Your task to perform on an android device: Go to accessibility settings Image 0: 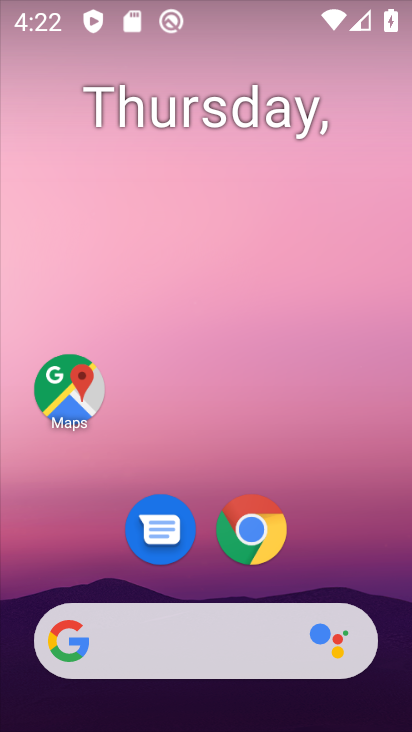
Step 0: drag from (95, 588) to (249, 166)
Your task to perform on an android device: Go to accessibility settings Image 1: 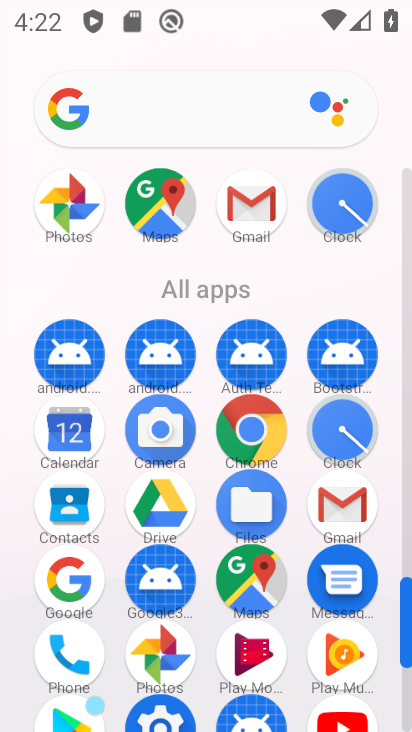
Step 1: drag from (173, 661) to (229, 487)
Your task to perform on an android device: Go to accessibility settings Image 2: 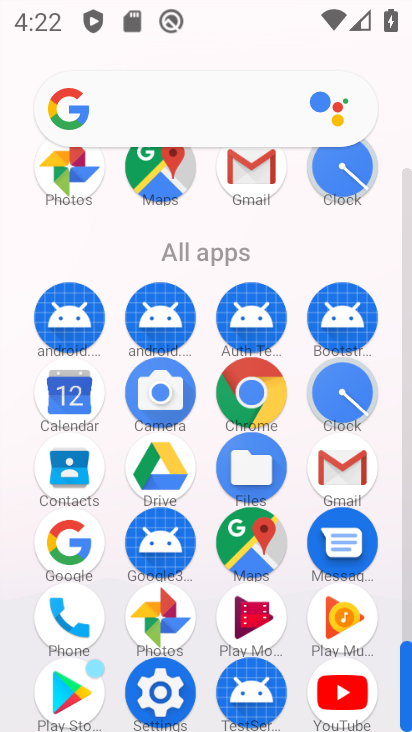
Step 2: click (153, 709)
Your task to perform on an android device: Go to accessibility settings Image 3: 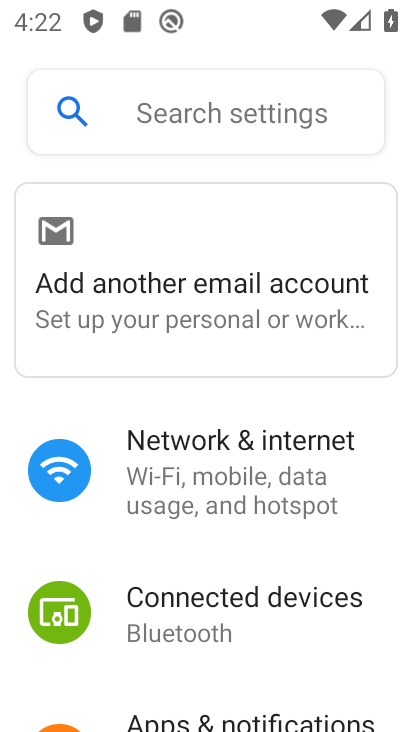
Step 3: drag from (191, 671) to (372, 150)
Your task to perform on an android device: Go to accessibility settings Image 4: 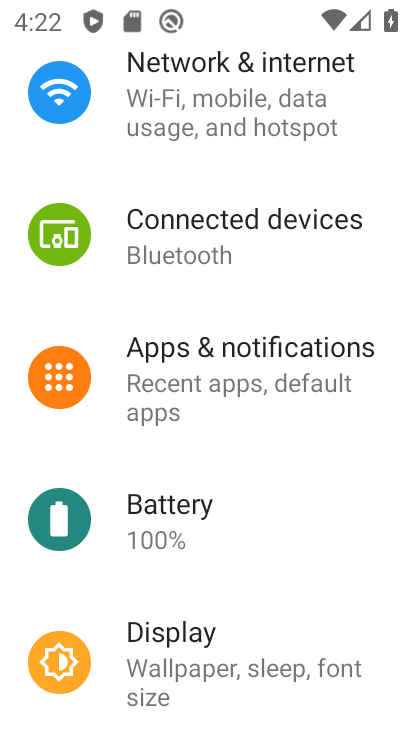
Step 4: drag from (259, 641) to (376, 196)
Your task to perform on an android device: Go to accessibility settings Image 5: 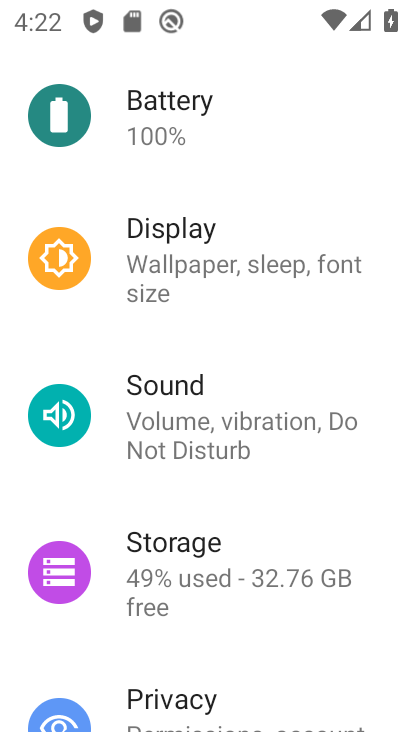
Step 5: drag from (310, 619) to (411, 294)
Your task to perform on an android device: Go to accessibility settings Image 6: 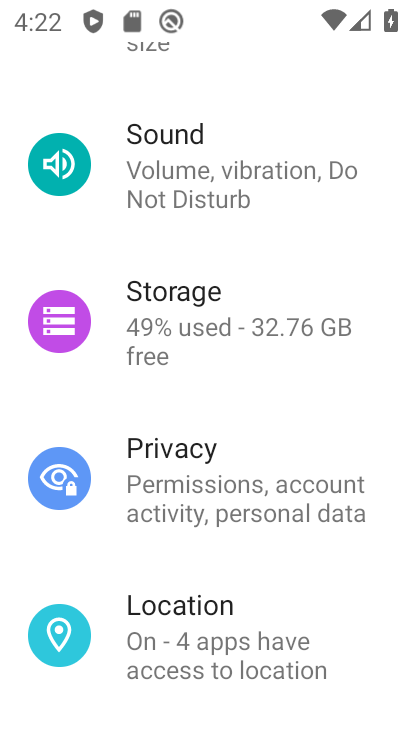
Step 6: drag from (223, 655) to (306, 324)
Your task to perform on an android device: Go to accessibility settings Image 7: 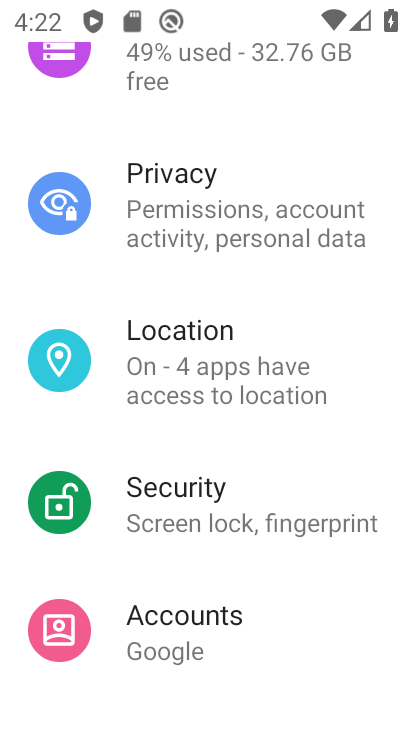
Step 7: drag from (243, 577) to (376, 249)
Your task to perform on an android device: Go to accessibility settings Image 8: 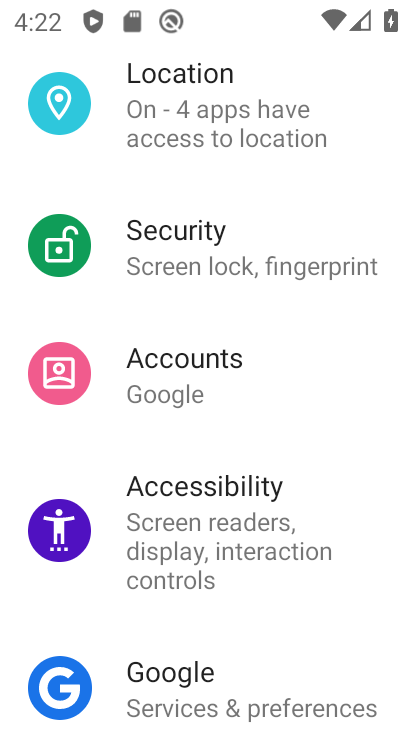
Step 8: drag from (222, 646) to (315, 400)
Your task to perform on an android device: Go to accessibility settings Image 9: 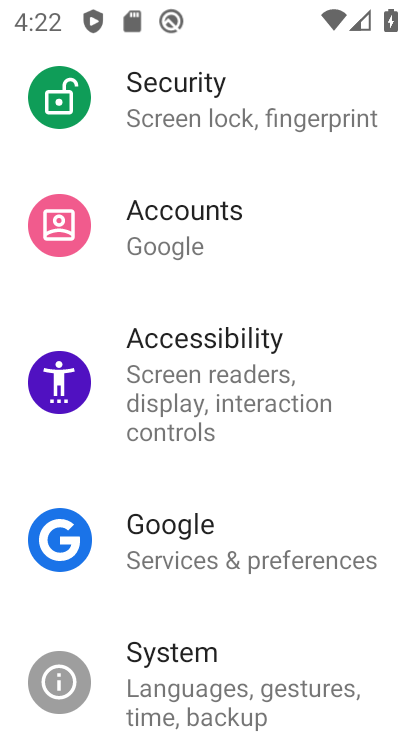
Step 9: click (302, 401)
Your task to perform on an android device: Go to accessibility settings Image 10: 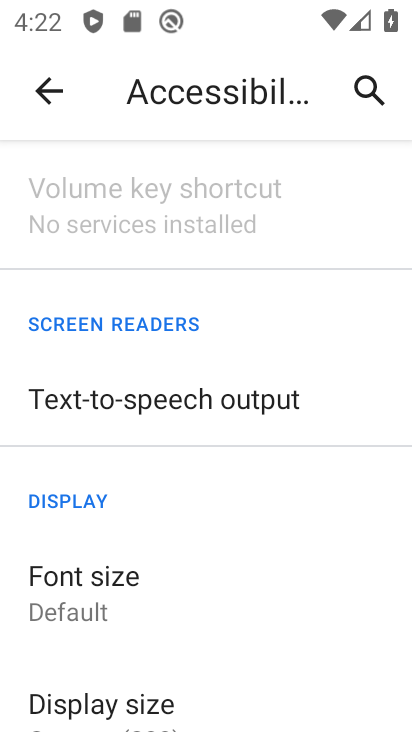
Step 10: task complete